Your task to perform on an android device: Open Google Chrome Image 0: 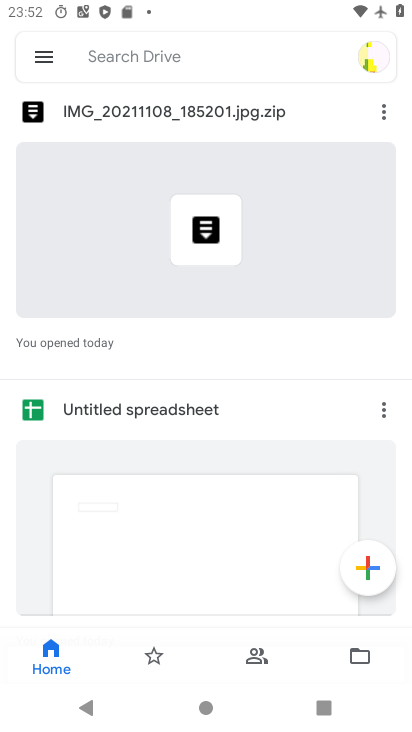
Step 0: press home button
Your task to perform on an android device: Open Google Chrome Image 1: 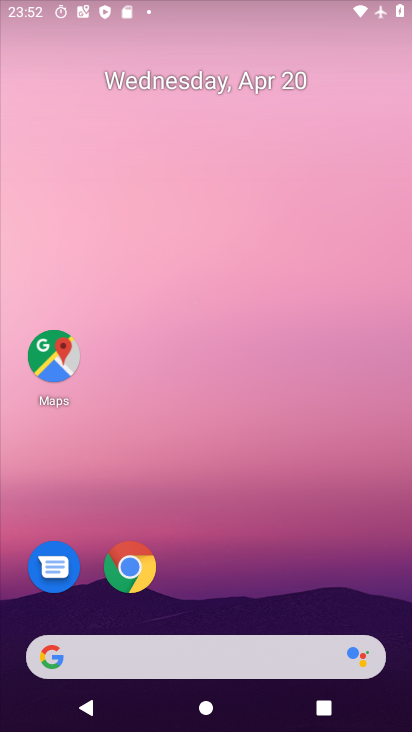
Step 1: drag from (248, 482) to (261, 235)
Your task to perform on an android device: Open Google Chrome Image 2: 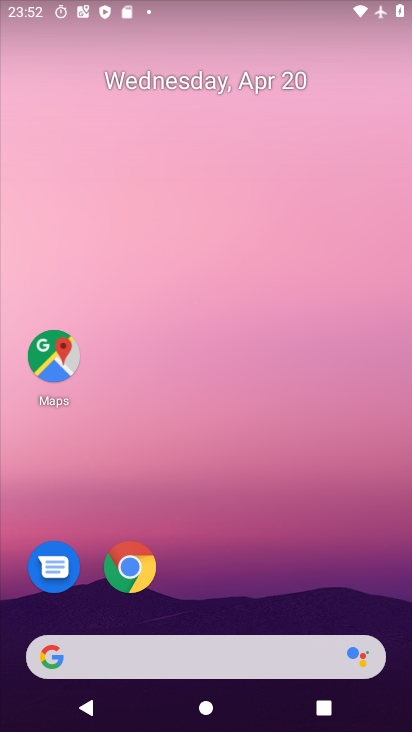
Step 2: drag from (207, 304) to (222, 178)
Your task to perform on an android device: Open Google Chrome Image 3: 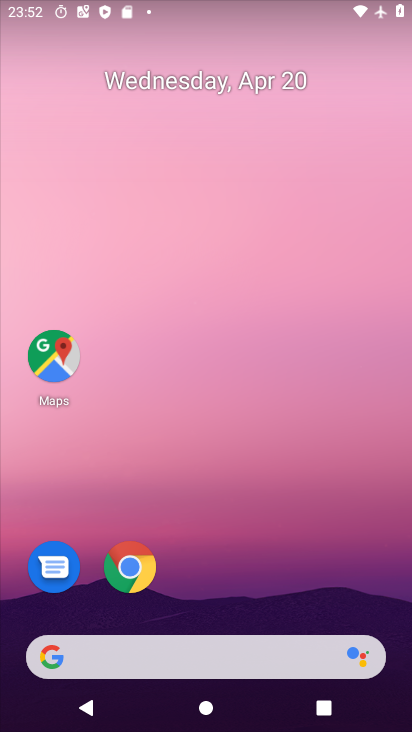
Step 3: click (275, 40)
Your task to perform on an android device: Open Google Chrome Image 4: 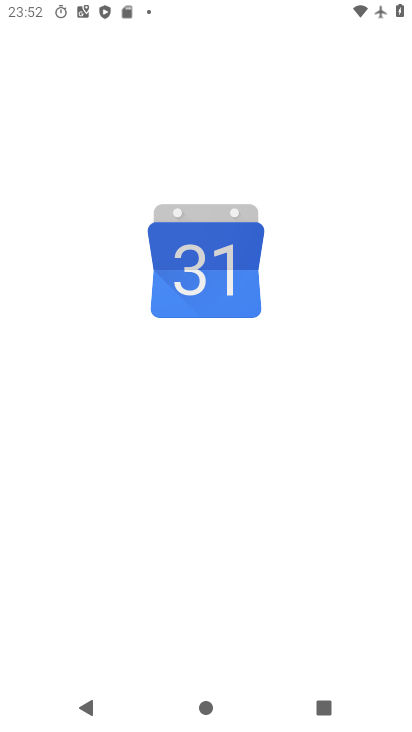
Step 4: drag from (207, 555) to (239, 188)
Your task to perform on an android device: Open Google Chrome Image 5: 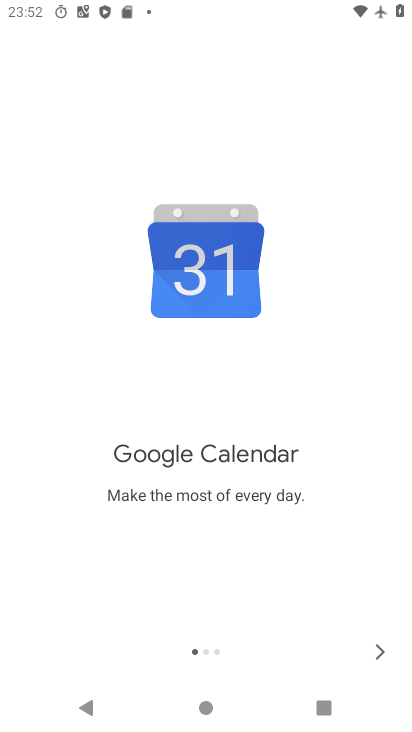
Step 5: press home button
Your task to perform on an android device: Open Google Chrome Image 6: 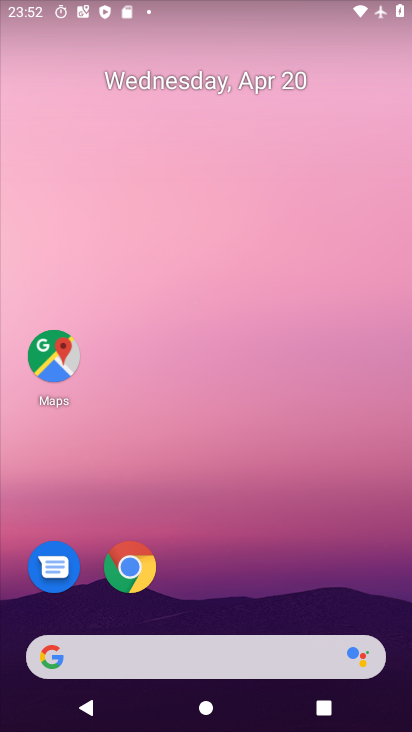
Step 6: drag from (226, 679) to (253, 270)
Your task to perform on an android device: Open Google Chrome Image 7: 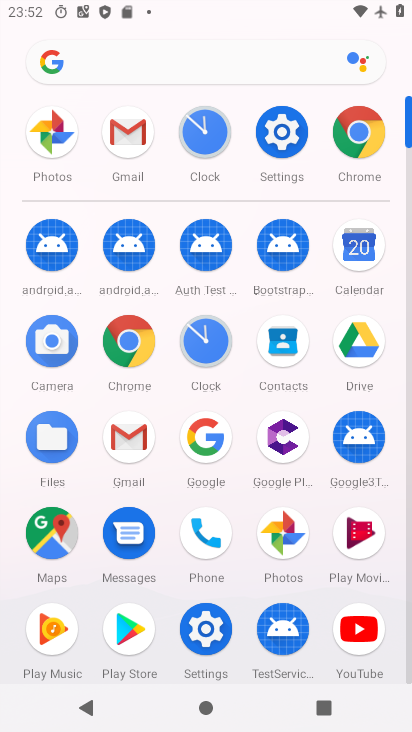
Step 7: click (132, 339)
Your task to perform on an android device: Open Google Chrome Image 8: 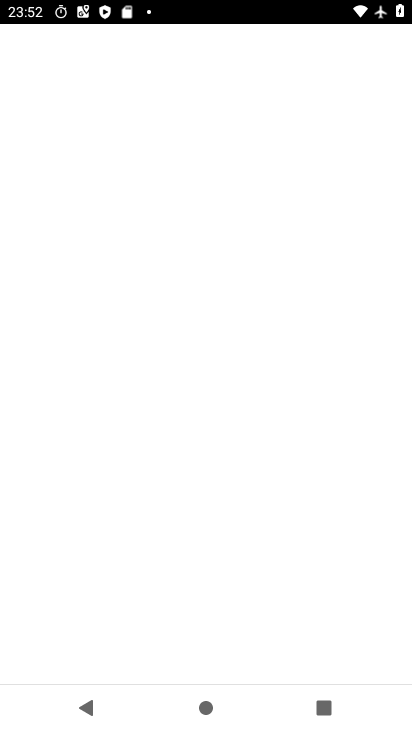
Step 8: click (132, 339)
Your task to perform on an android device: Open Google Chrome Image 9: 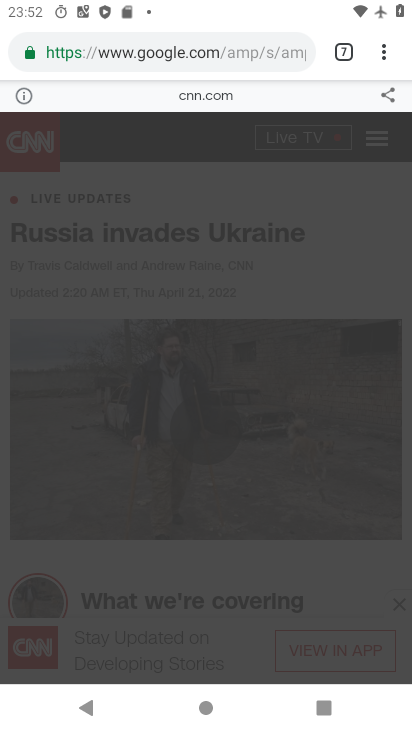
Step 9: click (384, 54)
Your task to perform on an android device: Open Google Chrome Image 10: 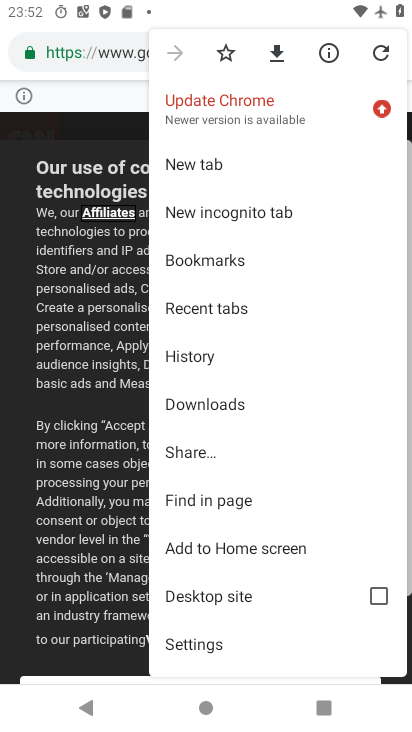
Step 10: click (66, 85)
Your task to perform on an android device: Open Google Chrome Image 11: 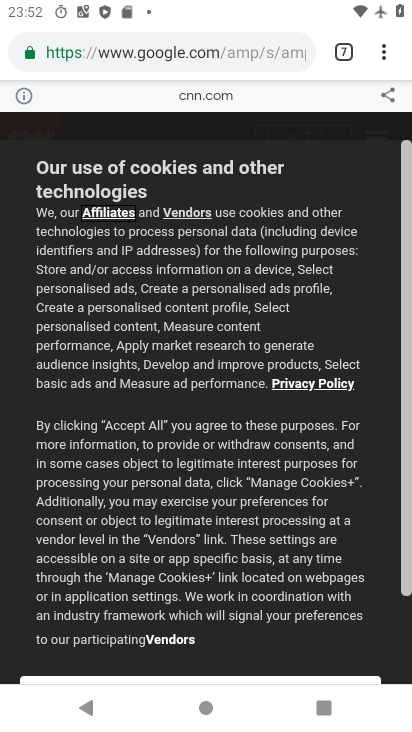
Step 11: task complete